Your task to perform on an android device: read, delete, or share a saved page in the chrome app Image 0: 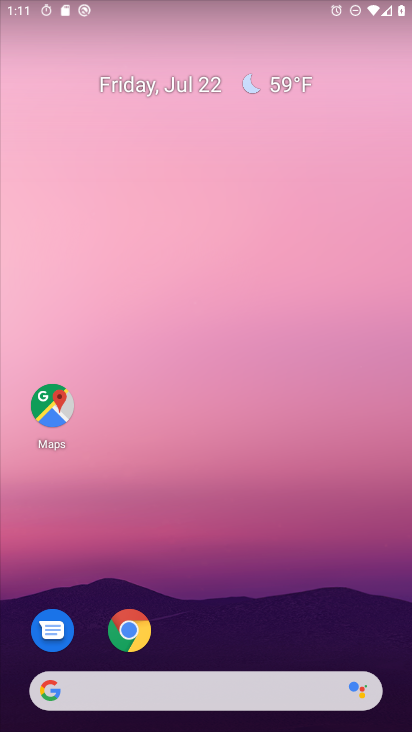
Step 0: press home button
Your task to perform on an android device: read, delete, or share a saved page in the chrome app Image 1: 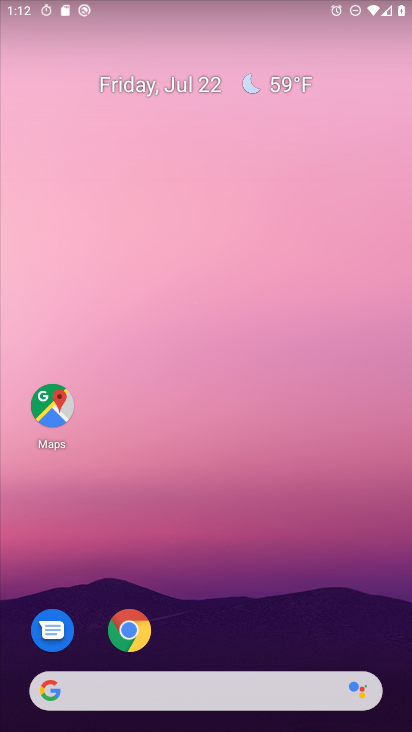
Step 1: drag from (261, 578) to (345, 5)
Your task to perform on an android device: read, delete, or share a saved page in the chrome app Image 2: 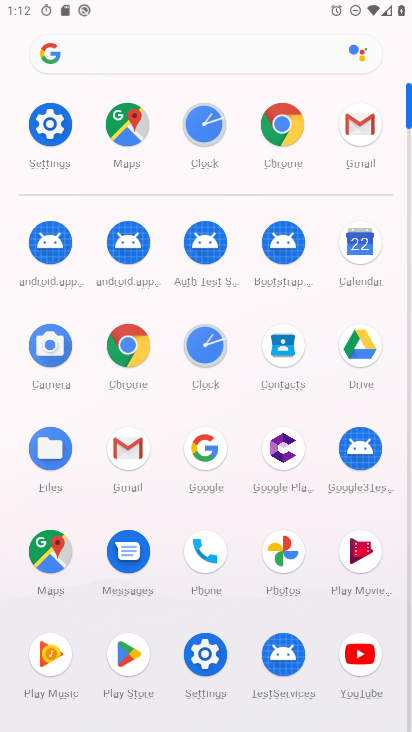
Step 2: click (287, 134)
Your task to perform on an android device: read, delete, or share a saved page in the chrome app Image 3: 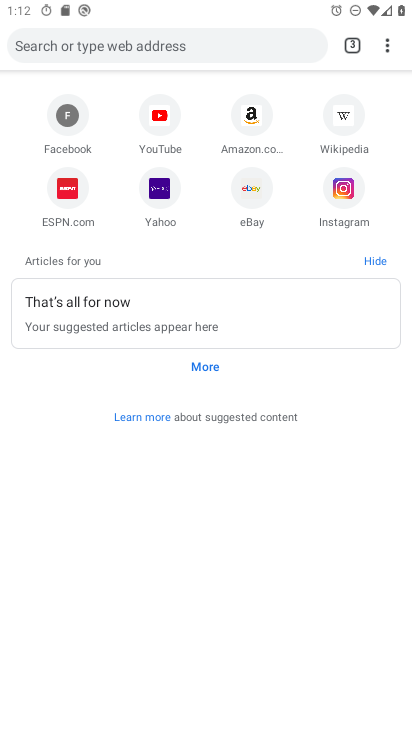
Step 3: drag from (391, 51) to (204, 351)
Your task to perform on an android device: read, delete, or share a saved page in the chrome app Image 4: 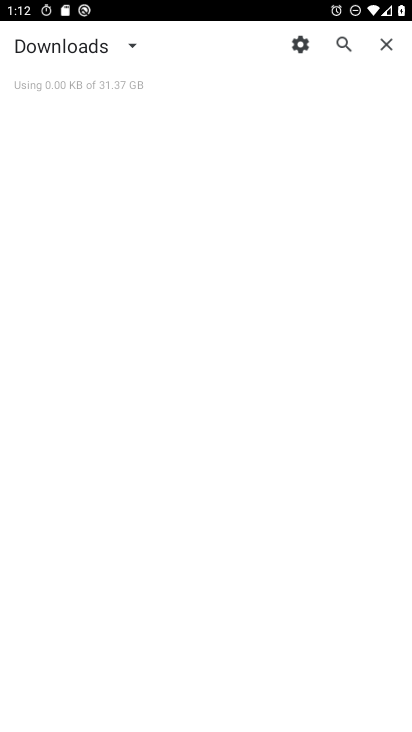
Step 4: click (134, 48)
Your task to perform on an android device: read, delete, or share a saved page in the chrome app Image 5: 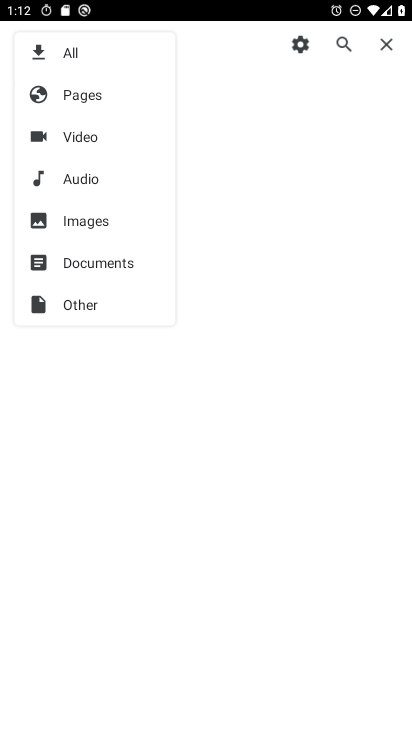
Step 5: click (65, 94)
Your task to perform on an android device: read, delete, or share a saved page in the chrome app Image 6: 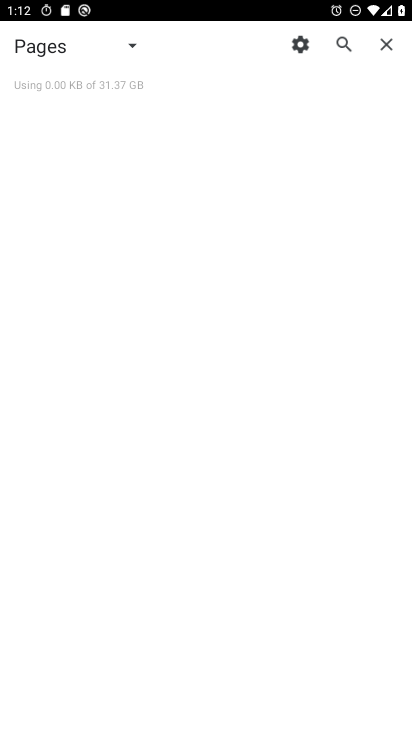
Step 6: task complete